Your task to perform on an android device: clear history in the chrome app Image 0: 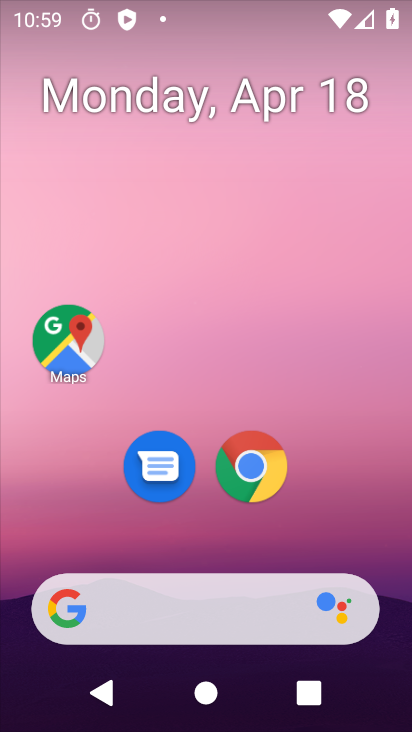
Step 0: drag from (246, 621) to (291, 82)
Your task to perform on an android device: clear history in the chrome app Image 1: 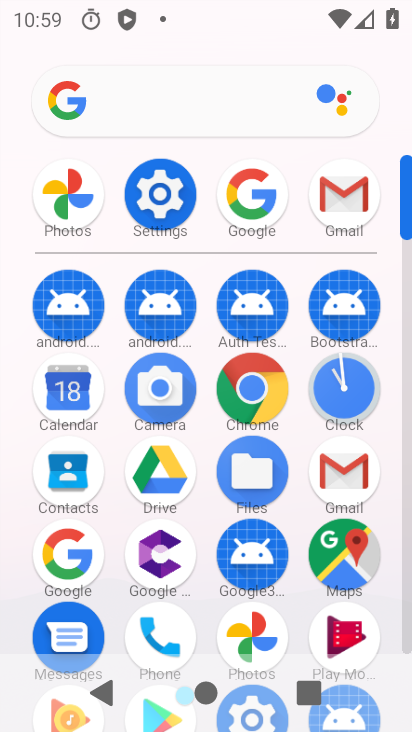
Step 1: click (281, 389)
Your task to perform on an android device: clear history in the chrome app Image 2: 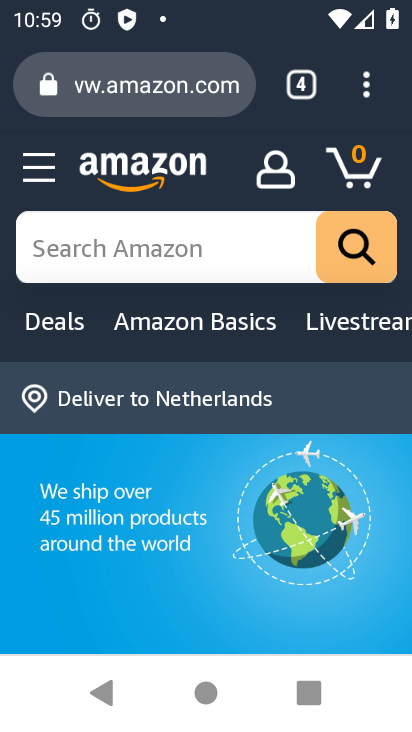
Step 2: click (366, 101)
Your task to perform on an android device: clear history in the chrome app Image 3: 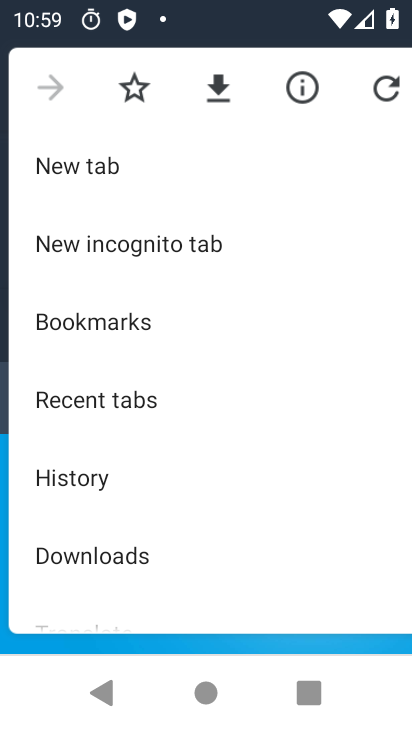
Step 3: click (95, 482)
Your task to perform on an android device: clear history in the chrome app Image 4: 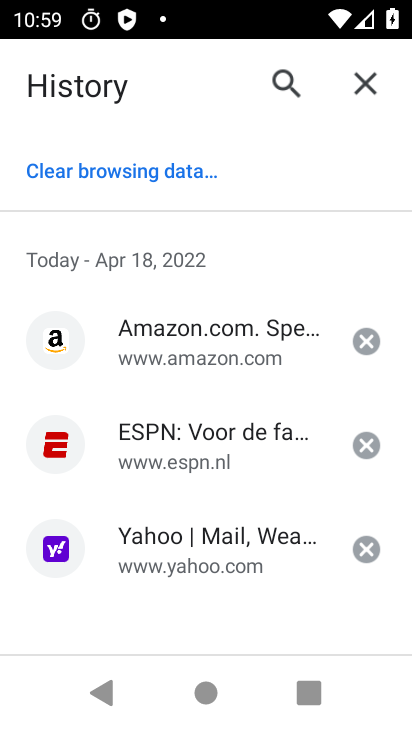
Step 4: click (128, 171)
Your task to perform on an android device: clear history in the chrome app Image 5: 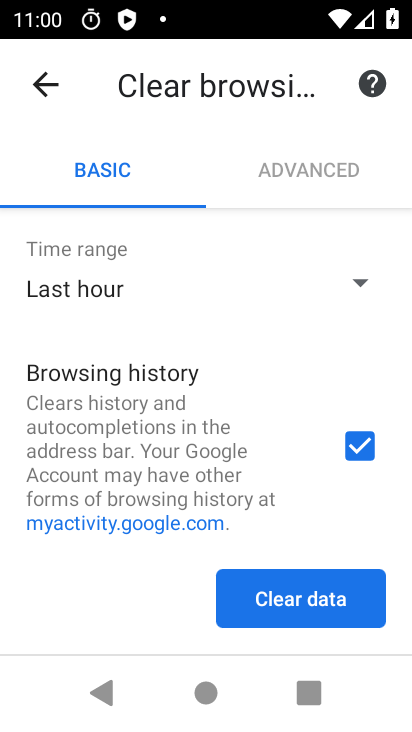
Step 5: click (298, 605)
Your task to perform on an android device: clear history in the chrome app Image 6: 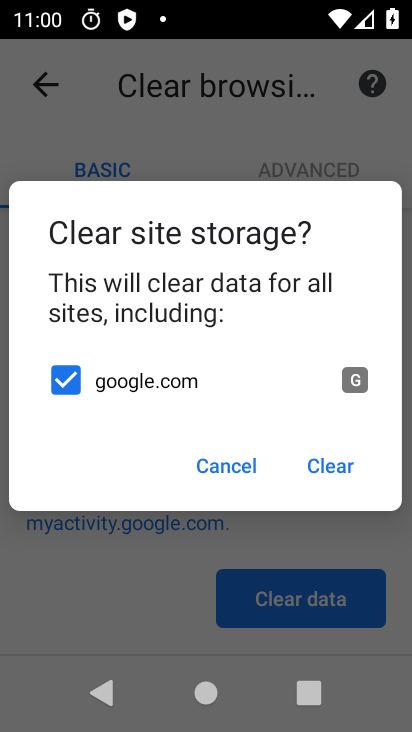
Step 6: click (331, 463)
Your task to perform on an android device: clear history in the chrome app Image 7: 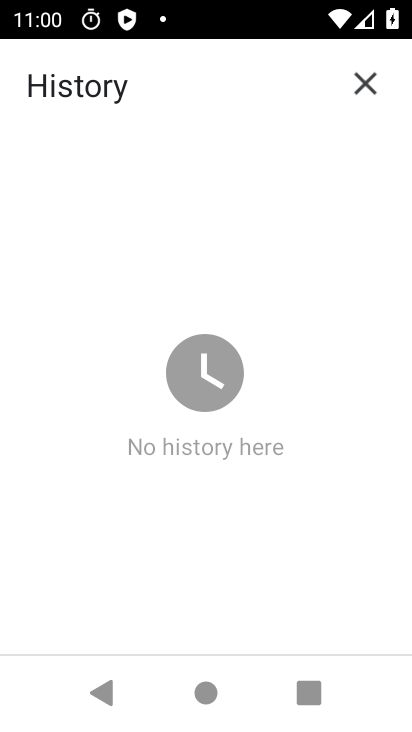
Step 7: task complete